Your task to perform on an android device: star an email in the gmail app Image 0: 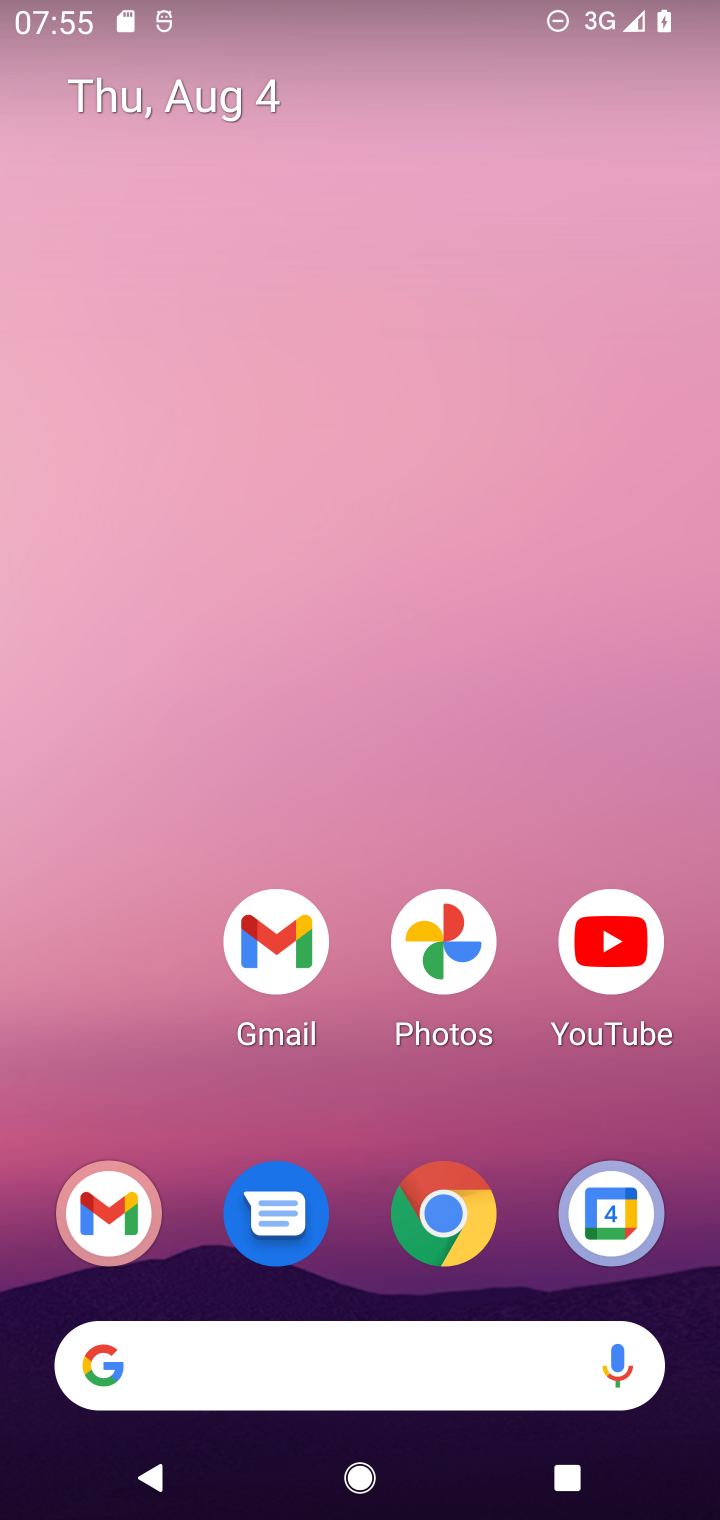
Step 0: drag from (194, 1140) to (191, 409)
Your task to perform on an android device: star an email in the gmail app Image 1: 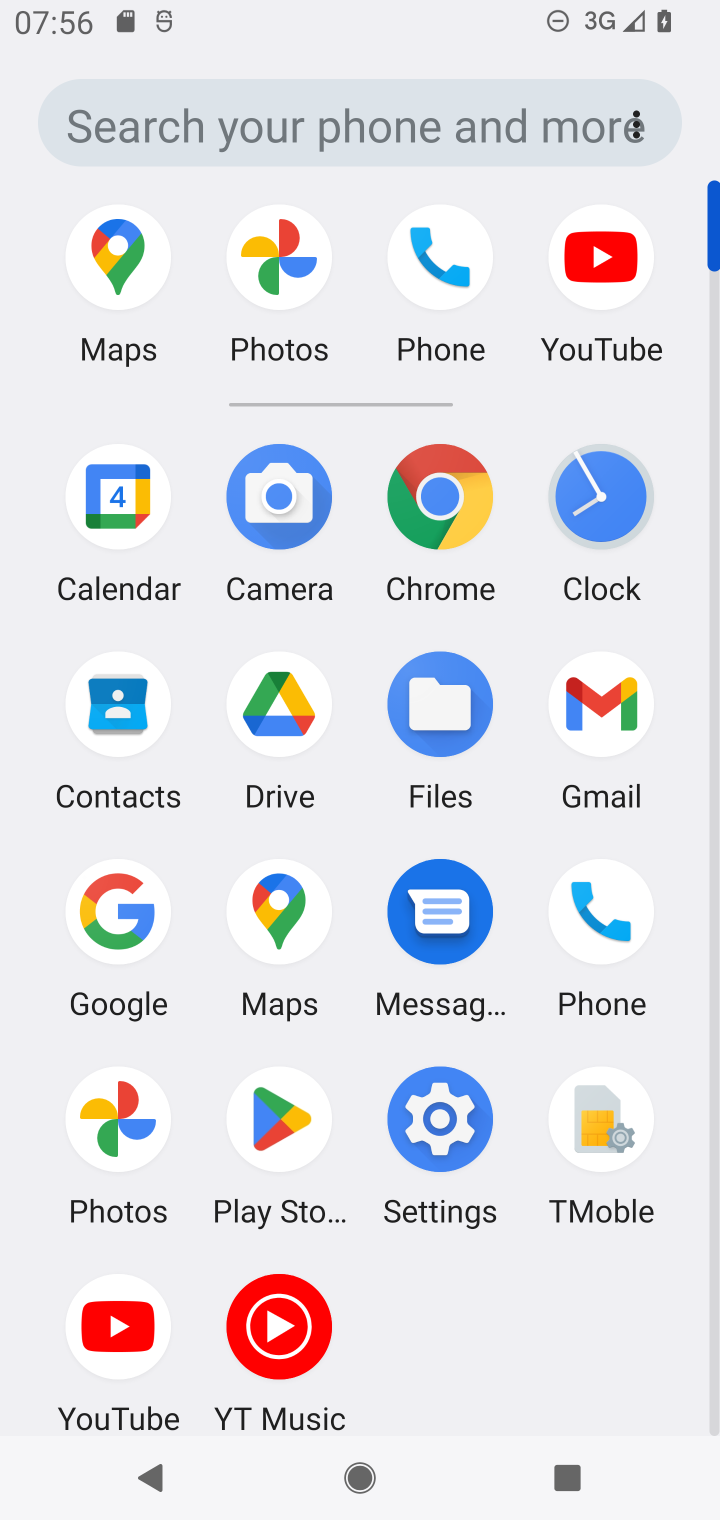
Step 1: click (616, 700)
Your task to perform on an android device: star an email in the gmail app Image 2: 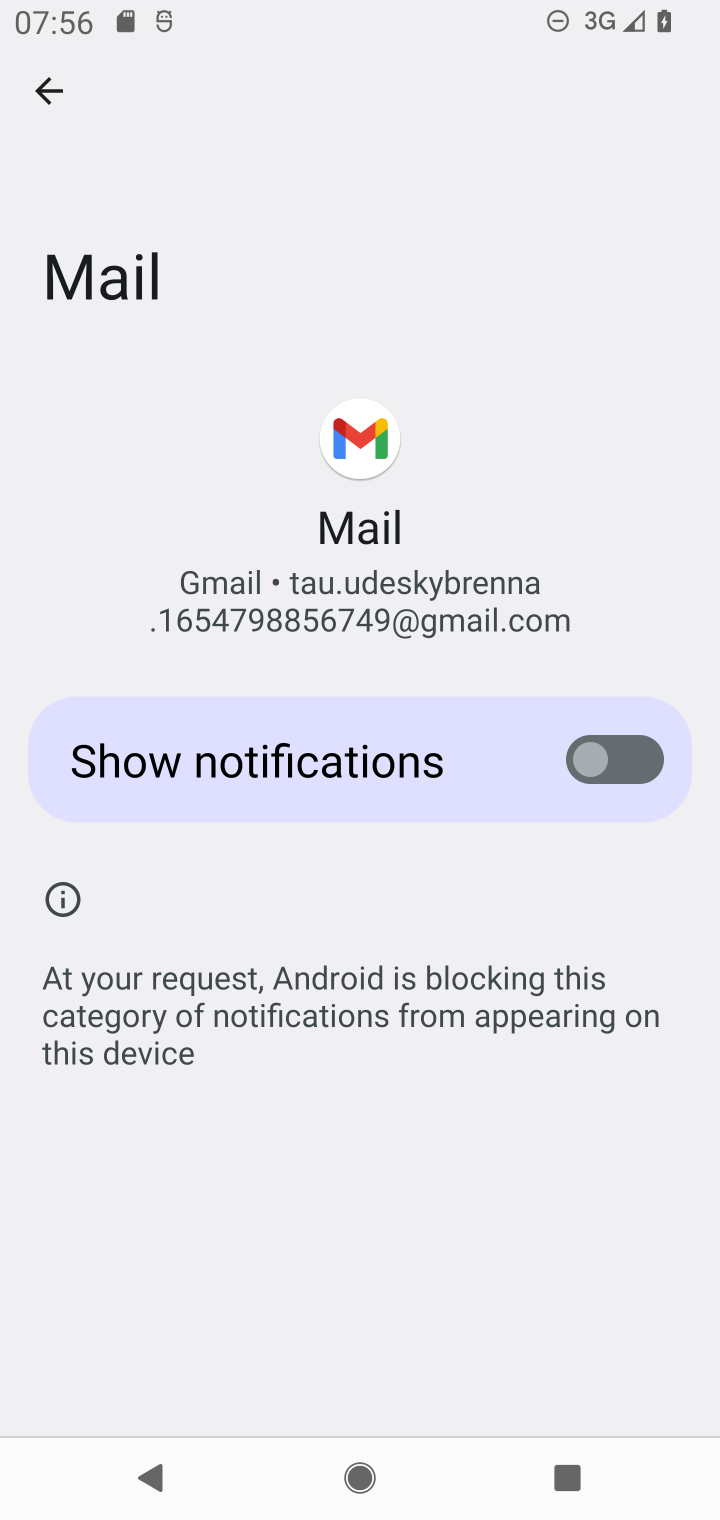
Step 2: press back button
Your task to perform on an android device: star an email in the gmail app Image 3: 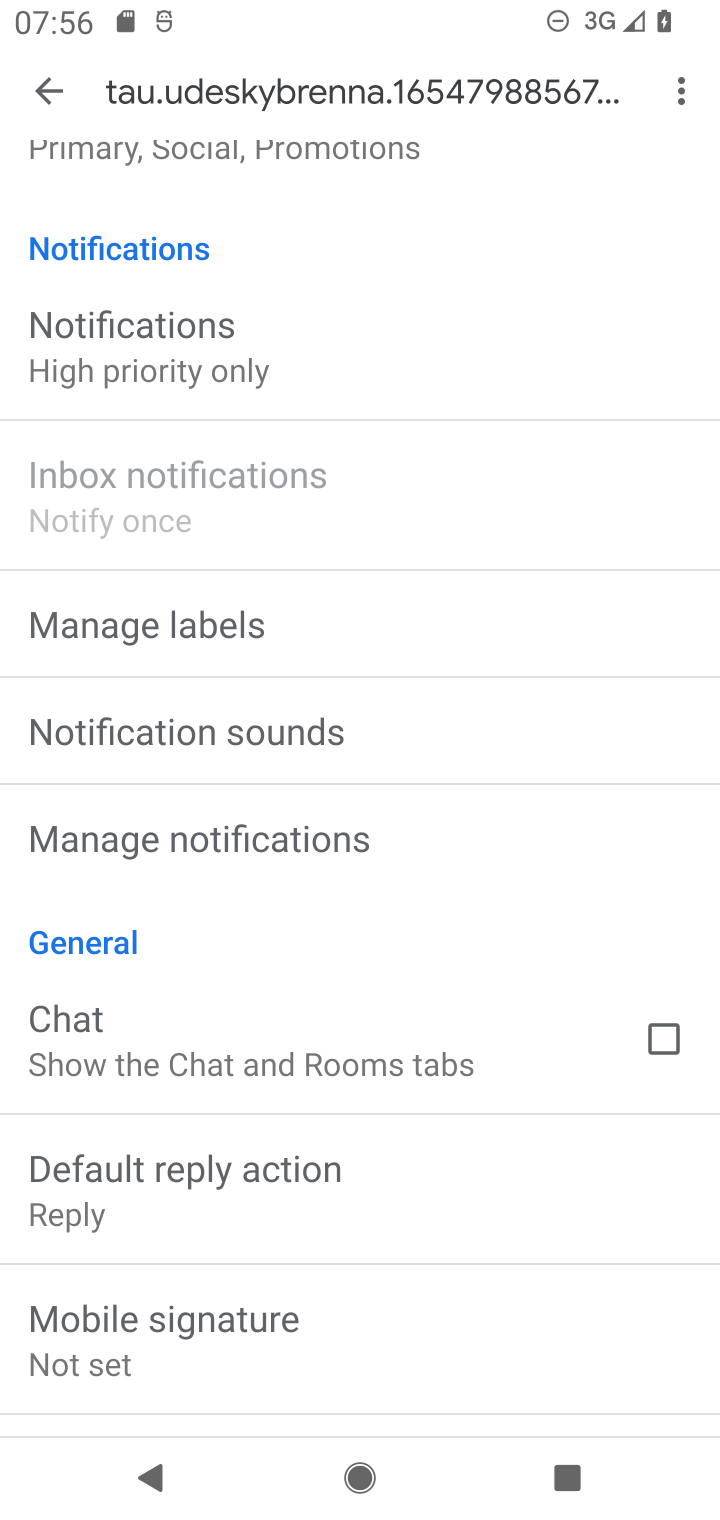
Step 3: press back button
Your task to perform on an android device: star an email in the gmail app Image 4: 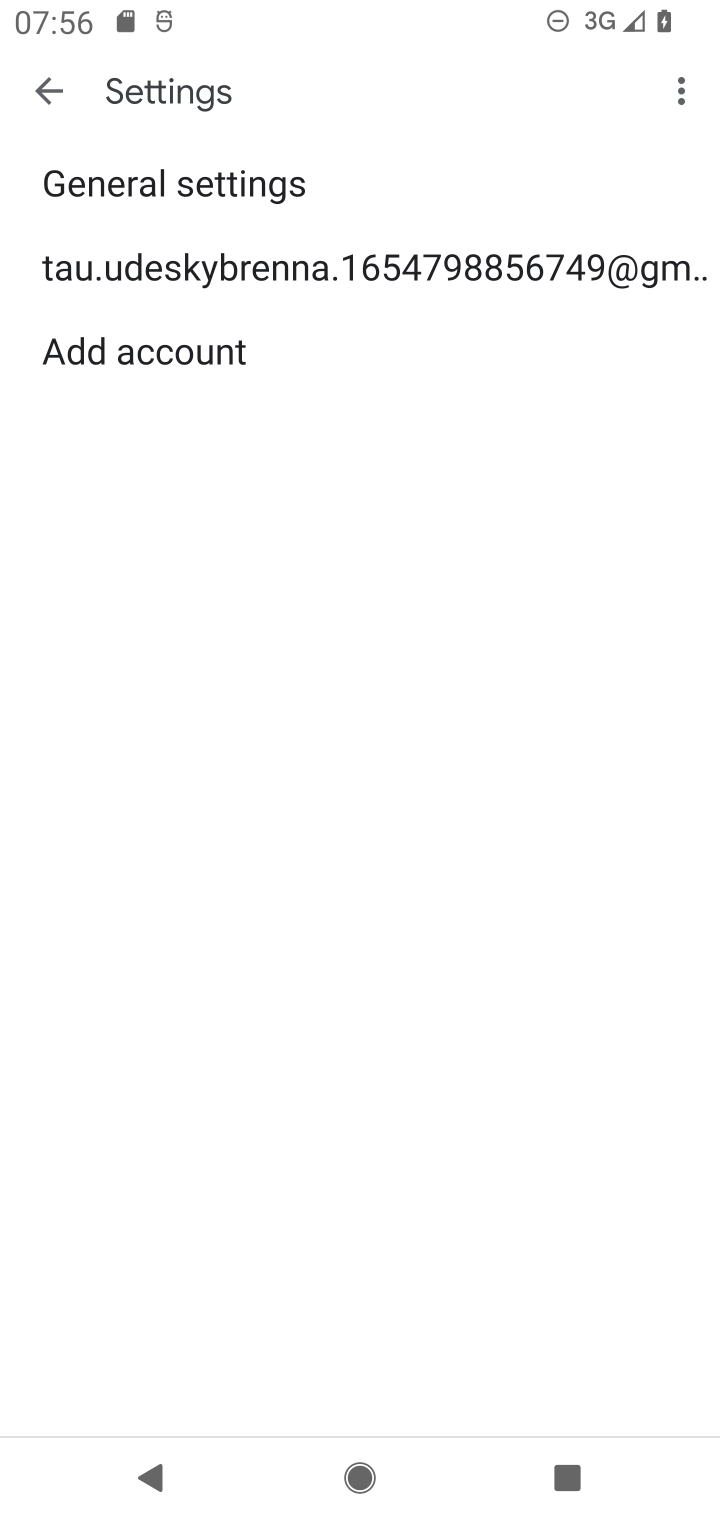
Step 4: press back button
Your task to perform on an android device: star an email in the gmail app Image 5: 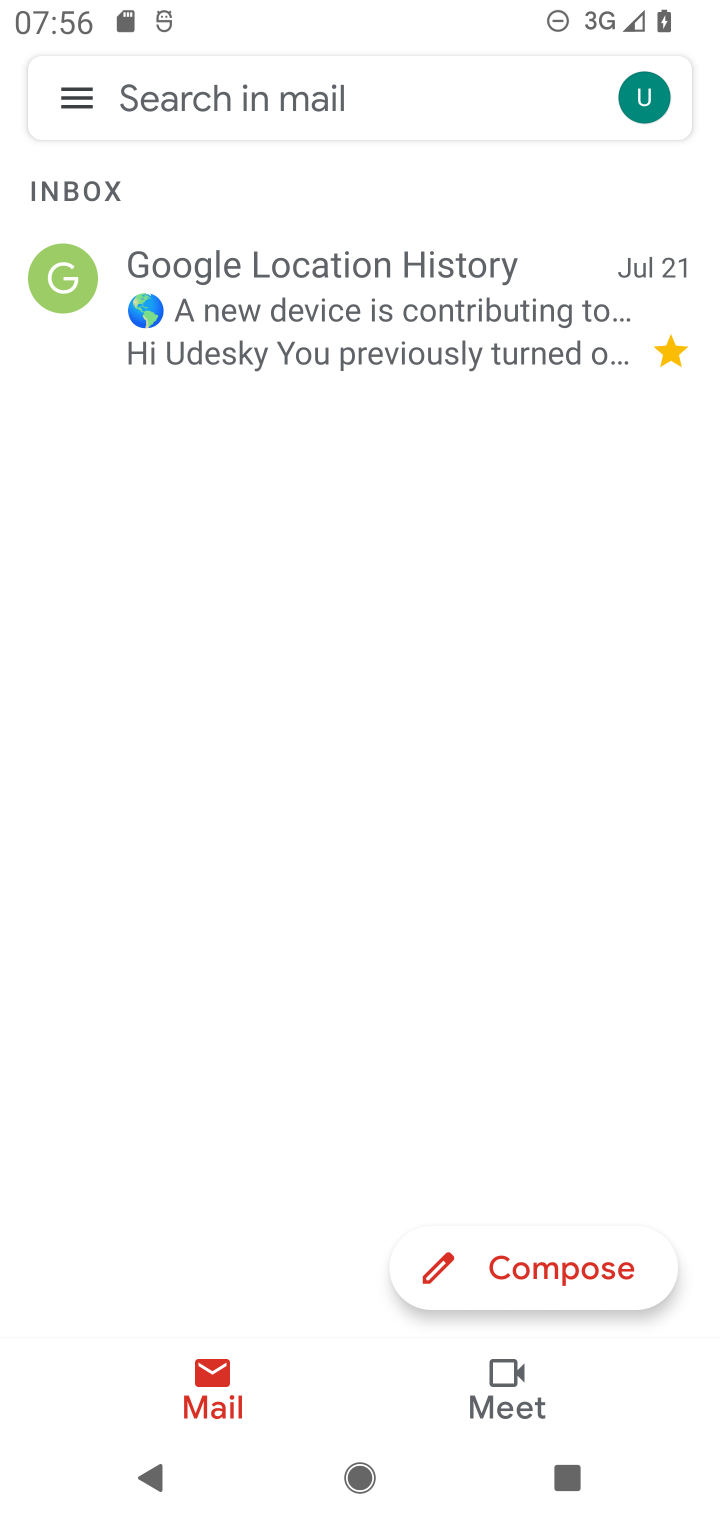
Step 5: click (81, 90)
Your task to perform on an android device: star an email in the gmail app Image 6: 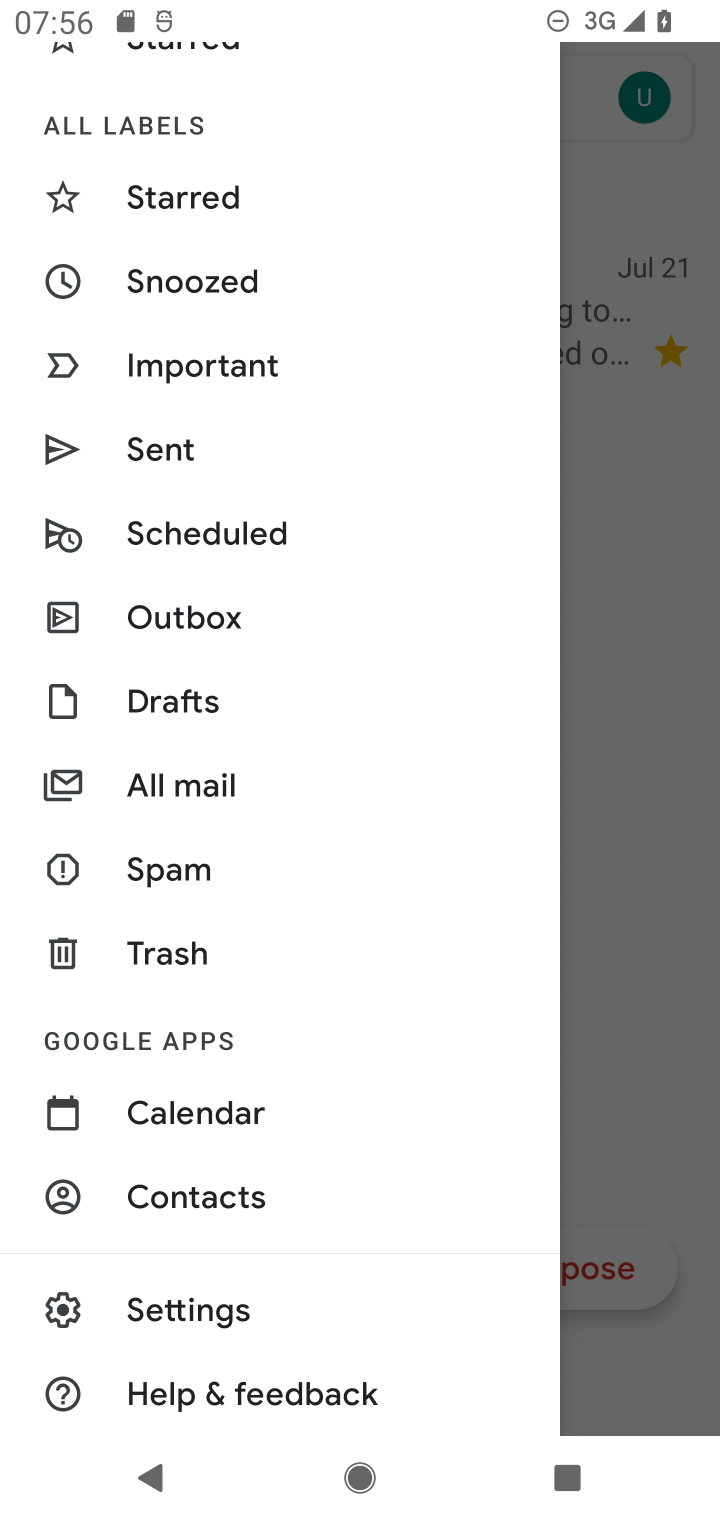
Step 6: drag from (420, 1082) to (435, 775)
Your task to perform on an android device: star an email in the gmail app Image 7: 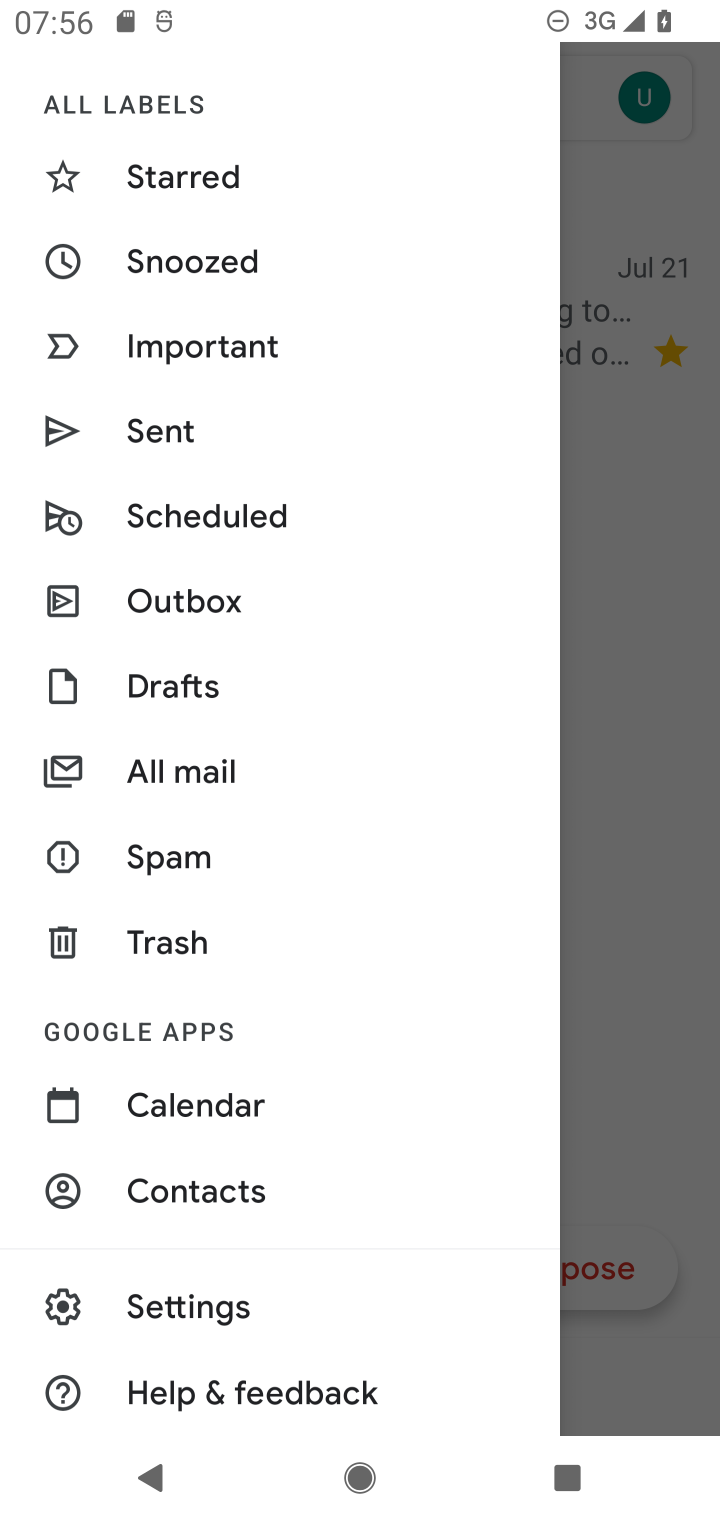
Step 7: click (283, 785)
Your task to perform on an android device: star an email in the gmail app Image 8: 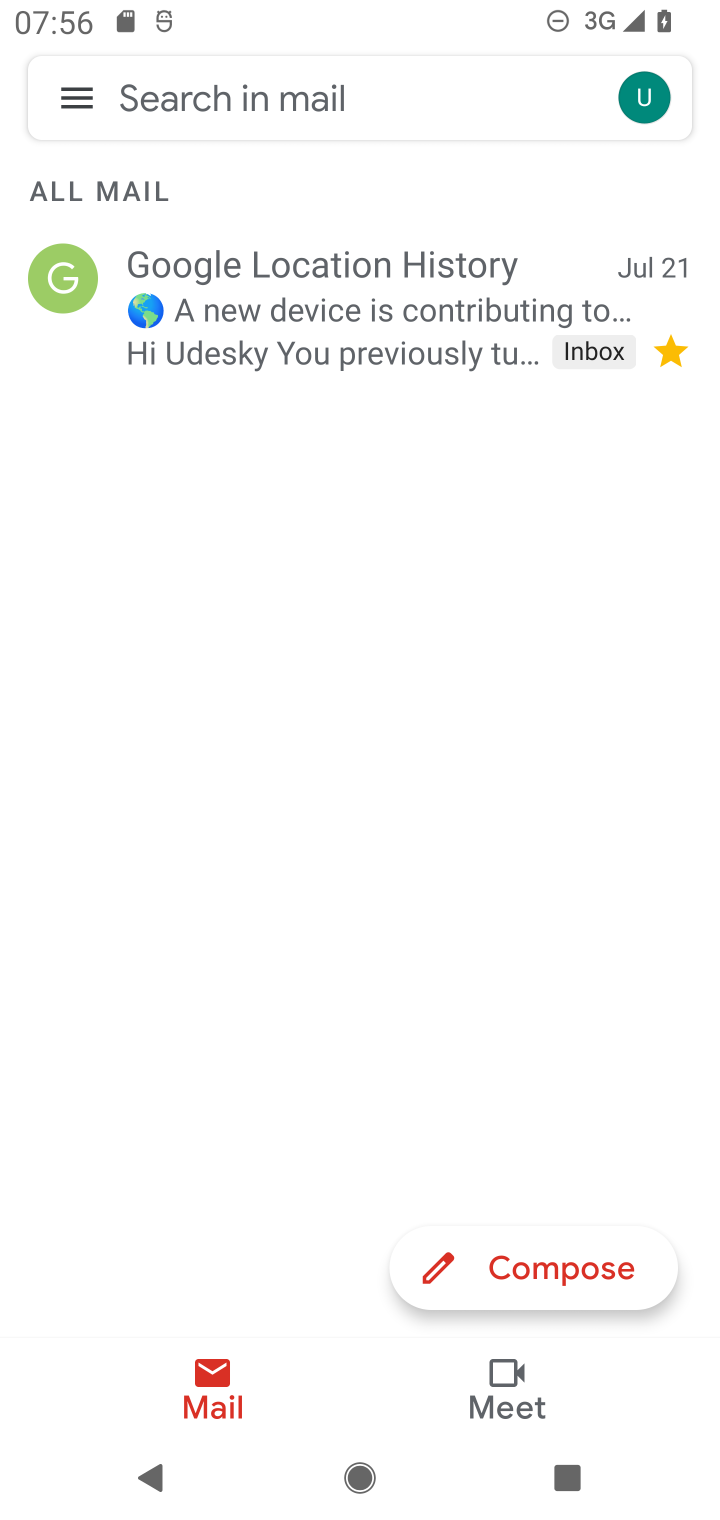
Step 8: task complete